Your task to perform on an android device: Open settings on Google Maps Image 0: 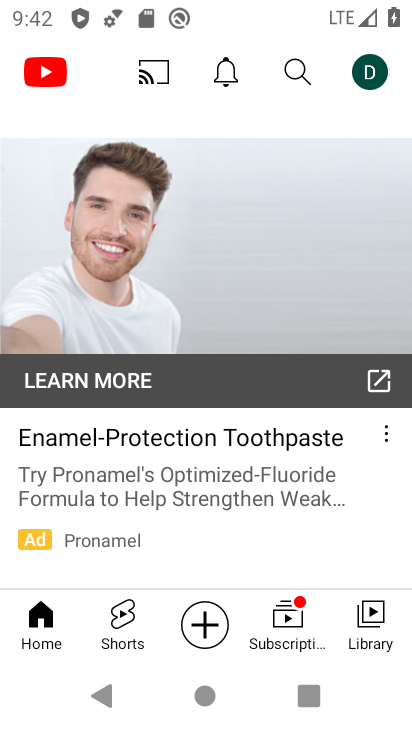
Step 0: press home button
Your task to perform on an android device: Open settings on Google Maps Image 1: 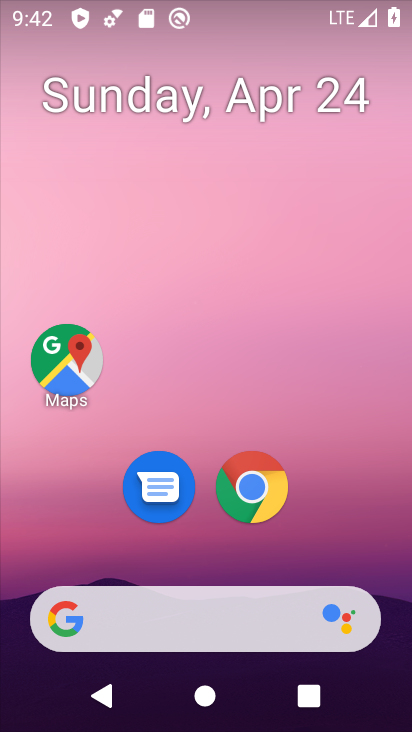
Step 1: drag from (297, 551) to (266, 117)
Your task to perform on an android device: Open settings on Google Maps Image 2: 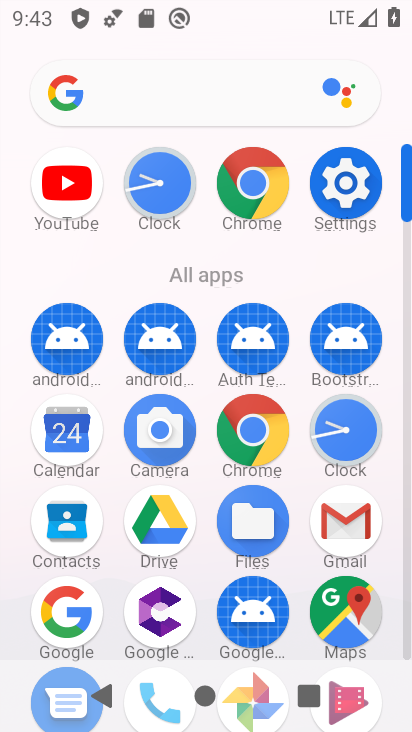
Step 2: click (336, 603)
Your task to perform on an android device: Open settings on Google Maps Image 3: 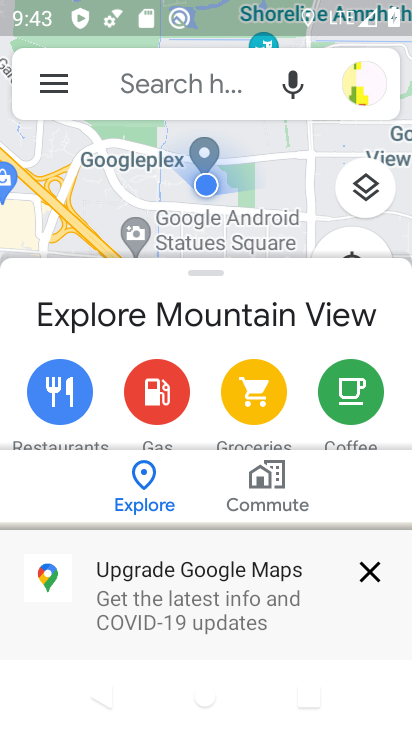
Step 3: click (373, 563)
Your task to perform on an android device: Open settings on Google Maps Image 4: 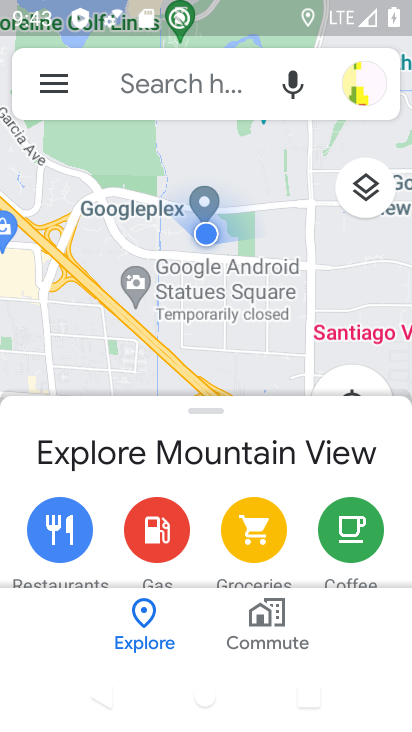
Step 4: task complete